Your task to perform on an android device: turn on translation in the chrome app Image 0: 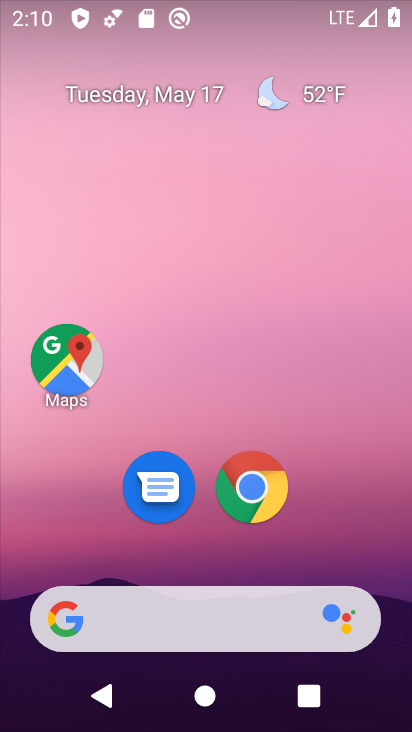
Step 0: click (240, 493)
Your task to perform on an android device: turn on translation in the chrome app Image 1: 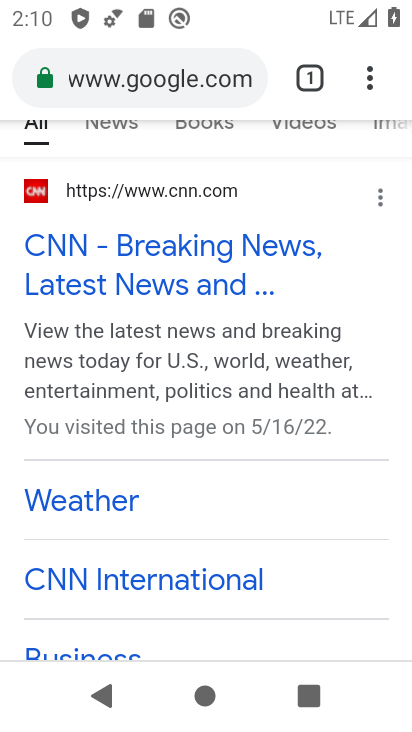
Step 1: click (369, 83)
Your task to perform on an android device: turn on translation in the chrome app Image 2: 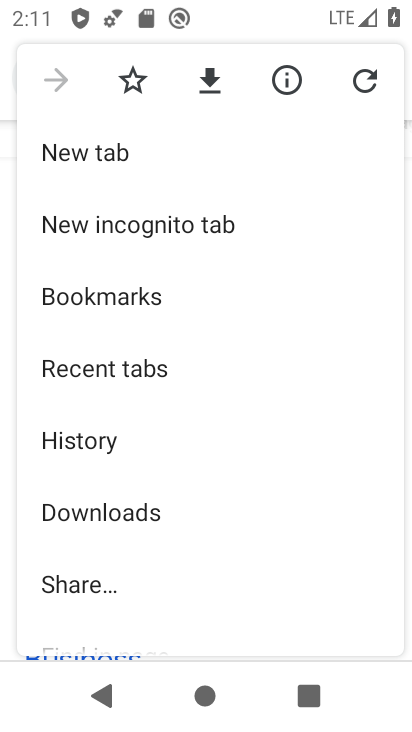
Step 2: drag from (271, 601) to (252, 408)
Your task to perform on an android device: turn on translation in the chrome app Image 3: 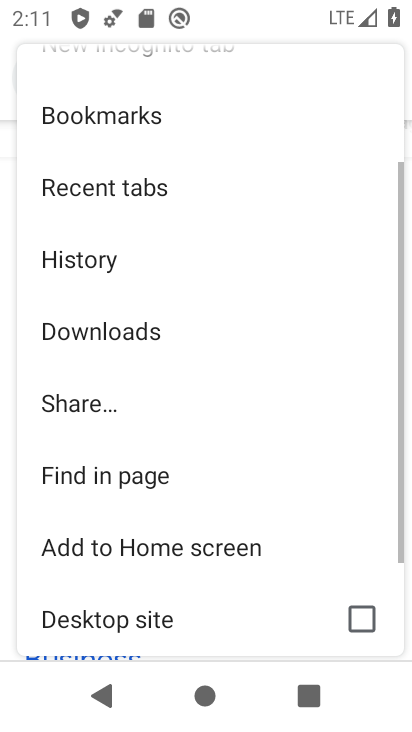
Step 3: drag from (274, 598) to (280, 294)
Your task to perform on an android device: turn on translation in the chrome app Image 4: 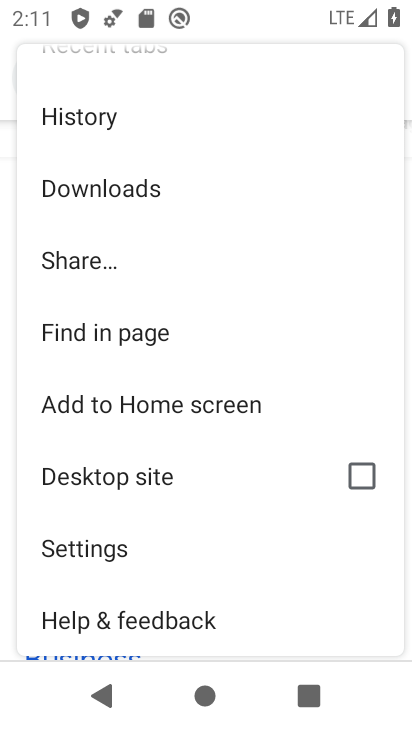
Step 4: drag from (299, 567) to (281, 282)
Your task to perform on an android device: turn on translation in the chrome app Image 5: 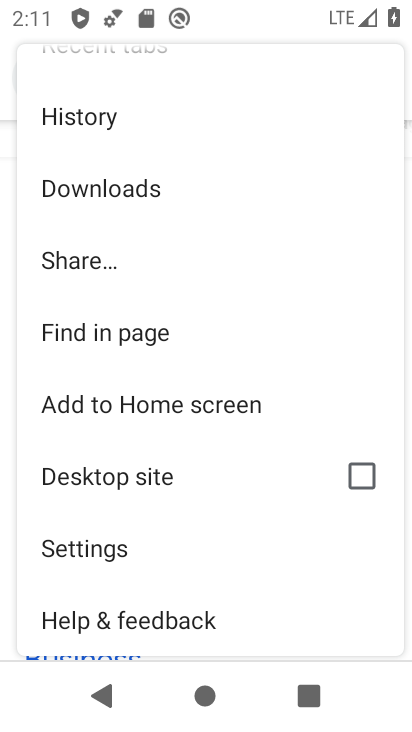
Step 5: click (92, 551)
Your task to perform on an android device: turn on translation in the chrome app Image 6: 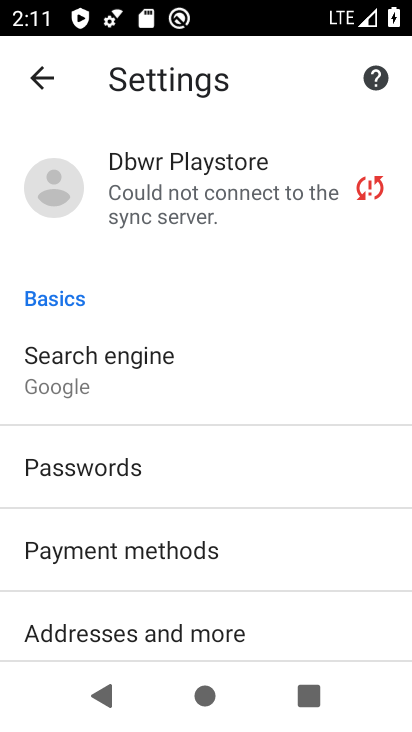
Step 6: click (38, 76)
Your task to perform on an android device: turn on translation in the chrome app Image 7: 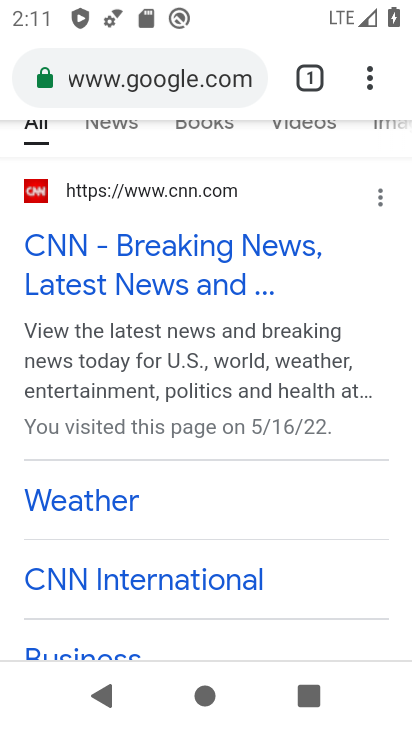
Step 7: click (372, 74)
Your task to perform on an android device: turn on translation in the chrome app Image 8: 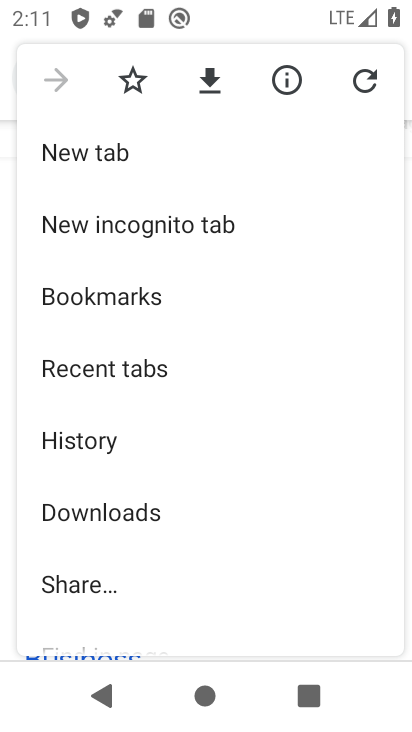
Step 8: drag from (313, 469) to (294, 249)
Your task to perform on an android device: turn on translation in the chrome app Image 9: 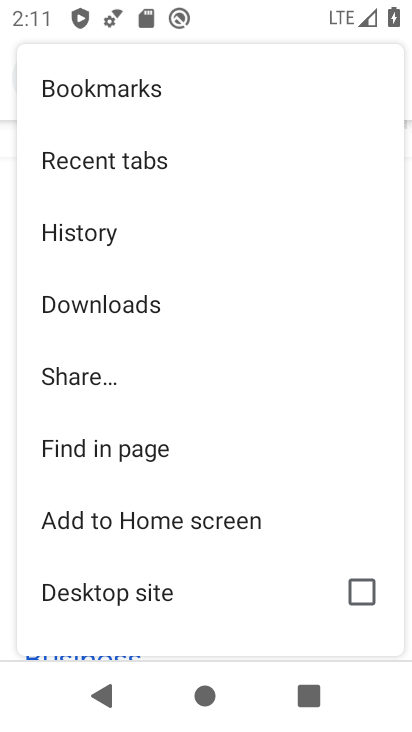
Step 9: drag from (315, 531) to (270, 263)
Your task to perform on an android device: turn on translation in the chrome app Image 10: 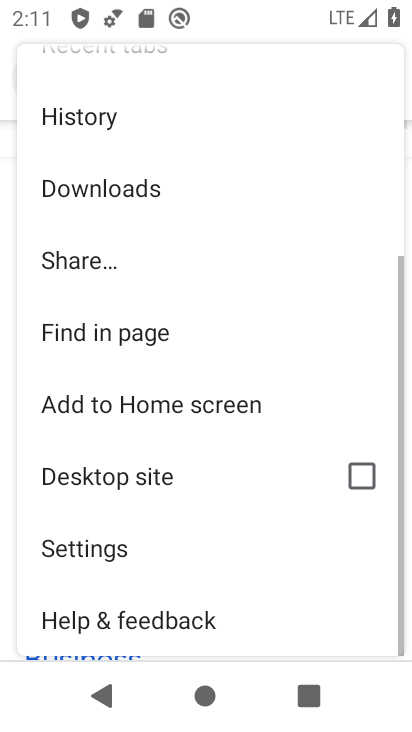
Step 10: click (93, 551)
Your task to perform on an android device: turn on translation in the chrome app Image 11: 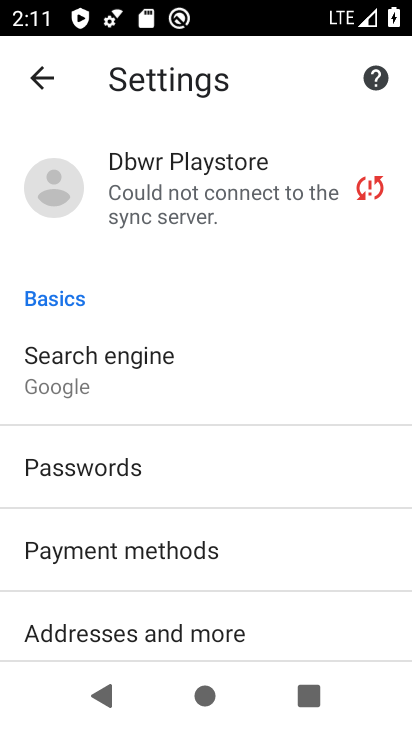
Step 11: drag from (319, 613) to (293, 297)
Your task to perform on an android device: turn on translation in the chrome app Image 12: 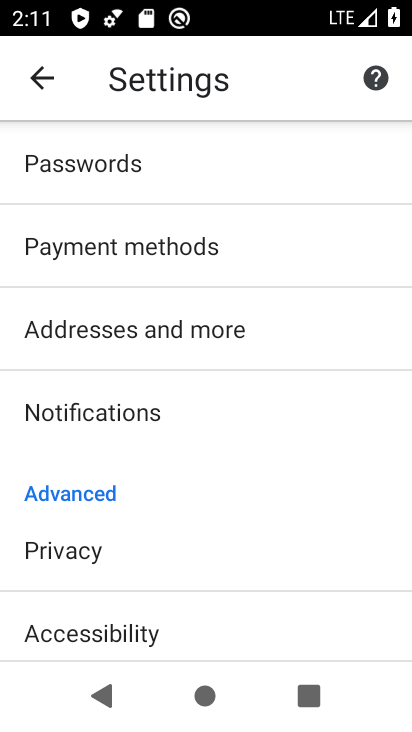
Step 12: drag from (283, 606) to (272, 330)
Your task to perform on an android device: turn on translation in the chrome app Image 13: 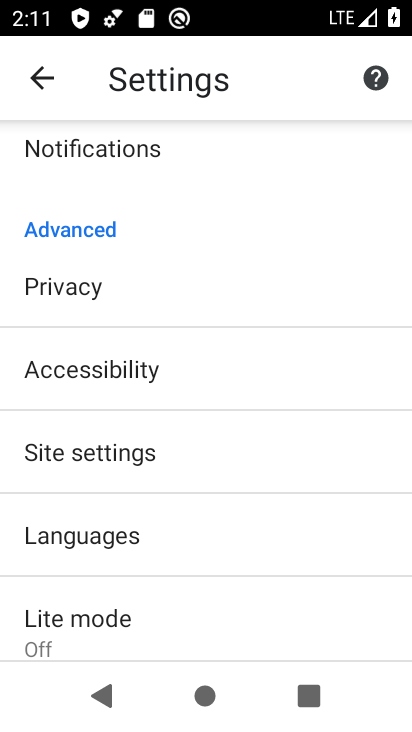
Step 13: drag from (286, 612) to (284, 337)
Your task to perform on an android device: turn on translation in the chrome app Image 14: 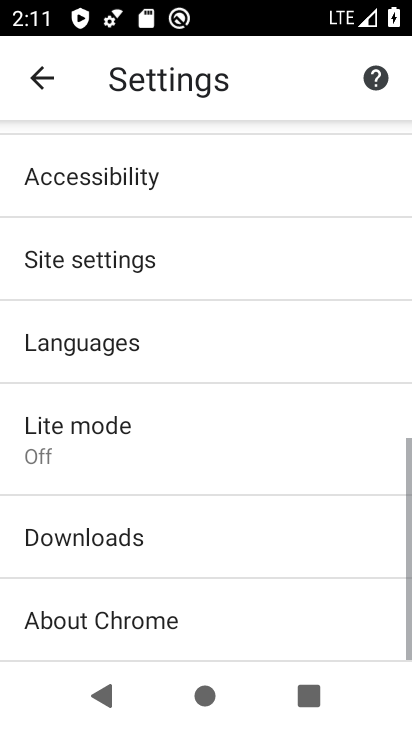
Step 14: drag from (291, 569) to (282, 331)
Your task to perform on an android device: turn on translation in the chrome app Image 15: 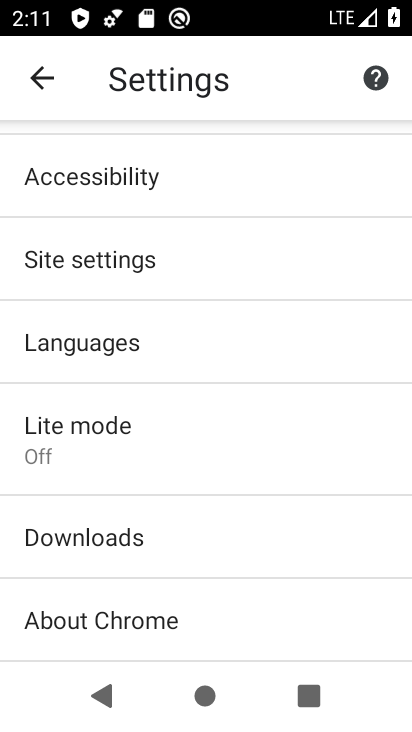
Step 15: click (67, 347)
Your task to perform on an android device: turn on translation in the chrome app Image 16: 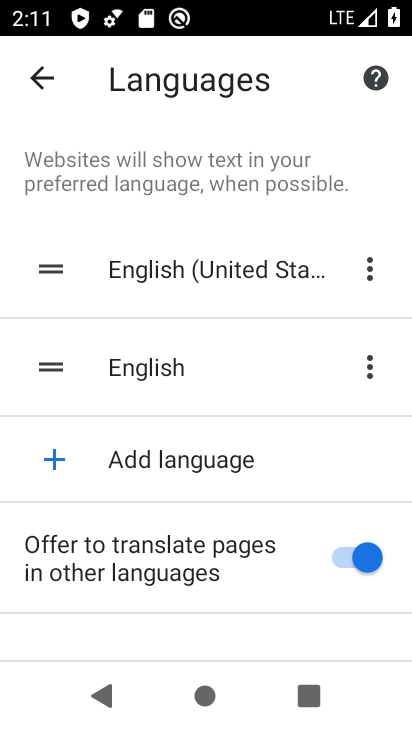
Step 16: task complete